Your task to perform on an android device: Open Maps and search for coffee Image 0: 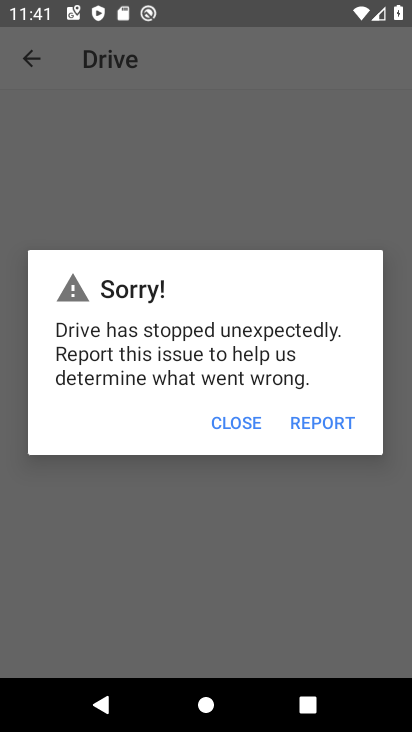
Step 0: press home button
Your task to perform on an android device: Open Maps and search for coffee Image 1: 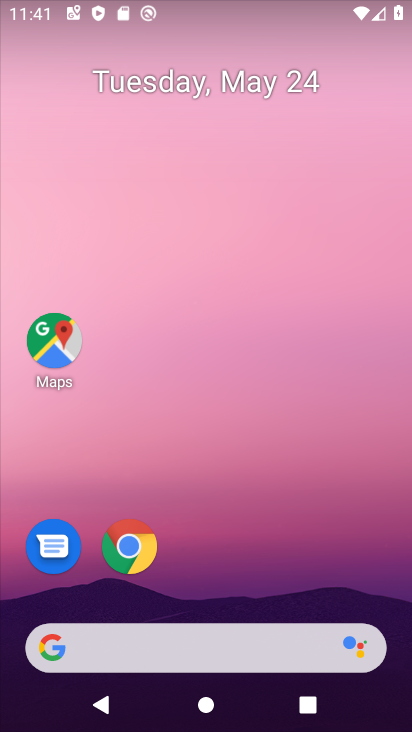
Step 1: click (46, 344)
Your task to perform on an android device: Open Maps and search for coffee Image 2: 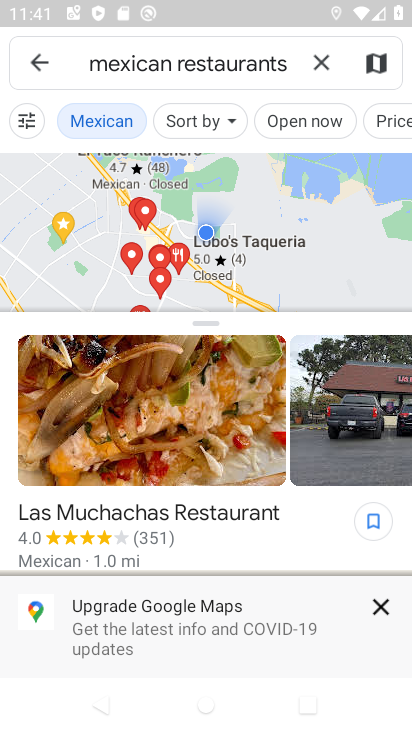
Step 2: click (322, 63)
Your task to perform on an android device: Open Maps and search for coffee Image 3: 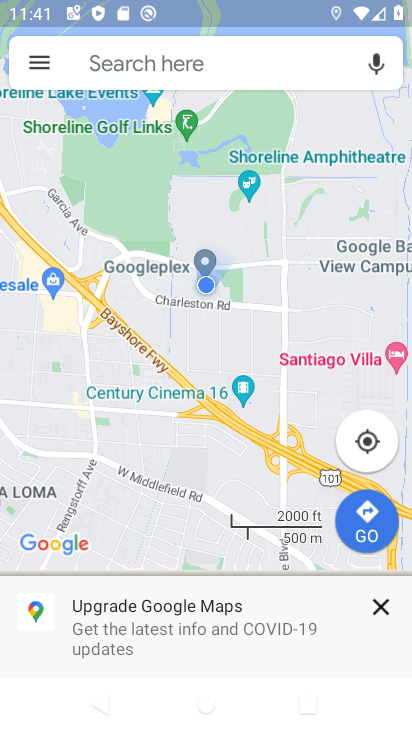
Step 3: click (194, 63)
Your task to perform on an android device: Open Maps and search for coffee Image 4: 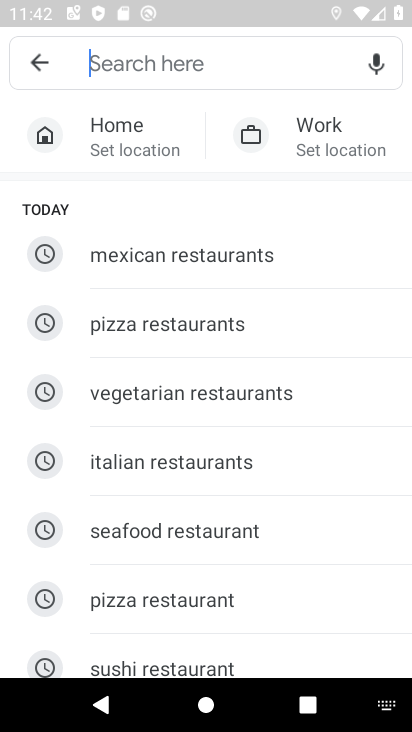
Step 4: type "coffee"
Your task to perform on an android device: Open Maps and search for coffee Image 5: 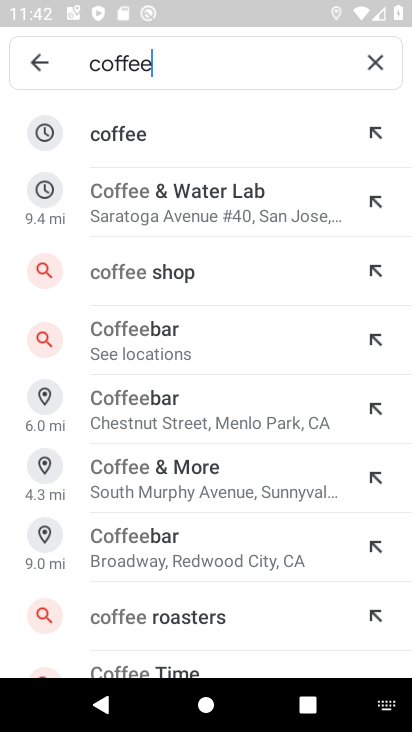
Step 5: click (113, 140)
Your task to perform on an android device: Open Maps and search for coffee Image 6: 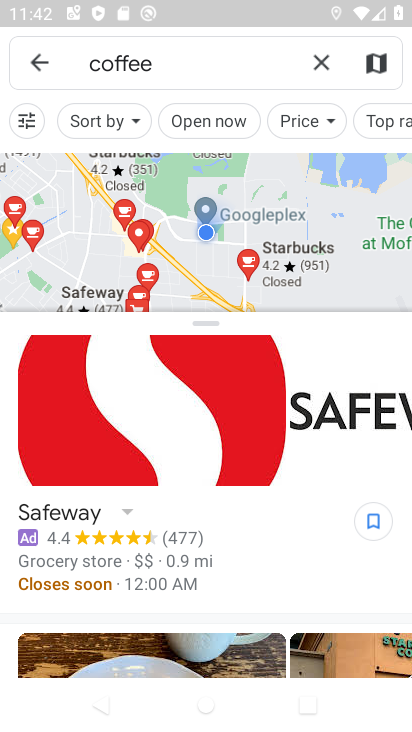
Step 6: task complete